Your task to perform on an android device: Show me recent news Image 0: 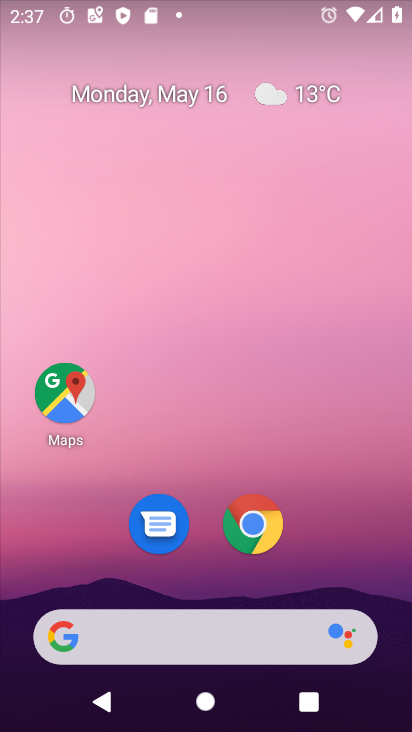
Step 0: click (260, 633)
Your task to perform on an android device: Show me recent news Image 1: 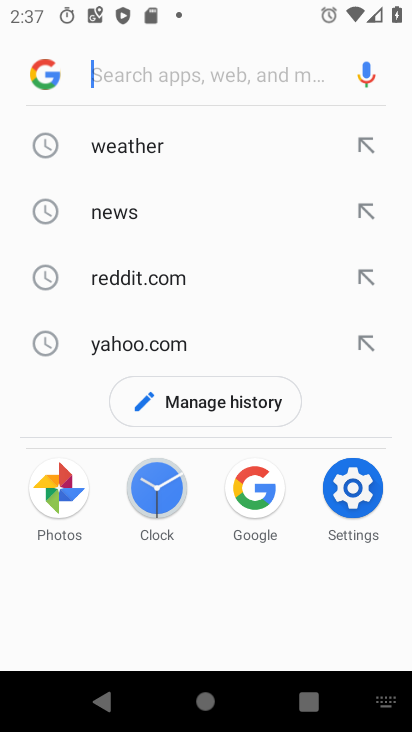
Step 1: click (41, 201)
Your task to perform on an android device: Show me recent news Image 2: 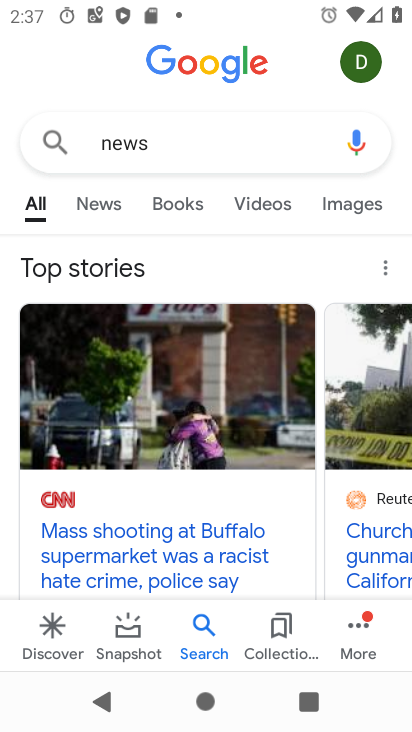
Step 2: click (104, 194)
Your task to perform on an android device: Show me recent news Image 3: 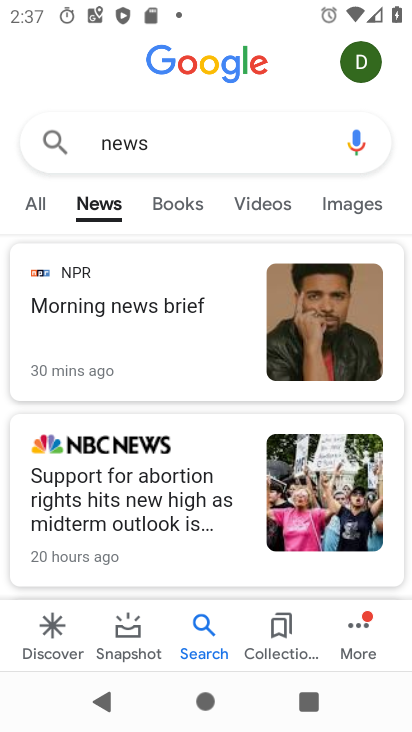
Step 3: click (190, 346)
Your task to perform on an android device: Show me recent news Image 4: 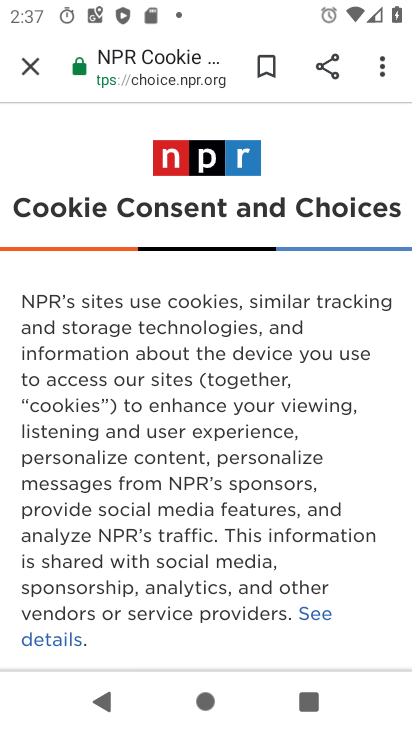
Step 4: task complete